Your task to perform on an android device: turn smart compose on in the gmail app Image 0: 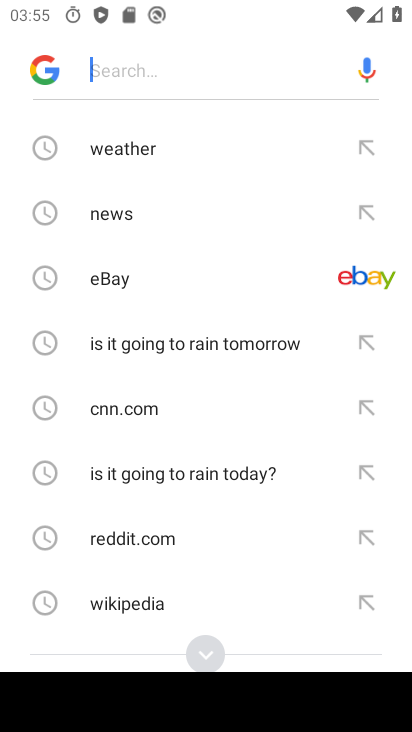
Step 0: press home button
Your task to perform on an android device: turn smart compose on in the gmail app Image 1: 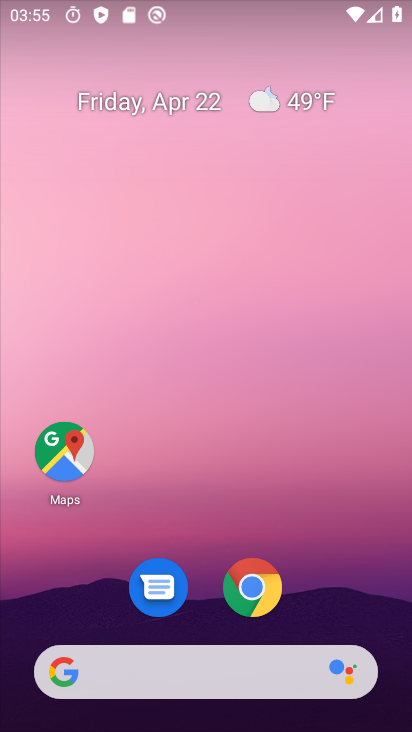
Step 1: drag from (358, 569) to (344, 44)
Your task to perform on an android device: turn smart compose on in the gmail app Image 2: 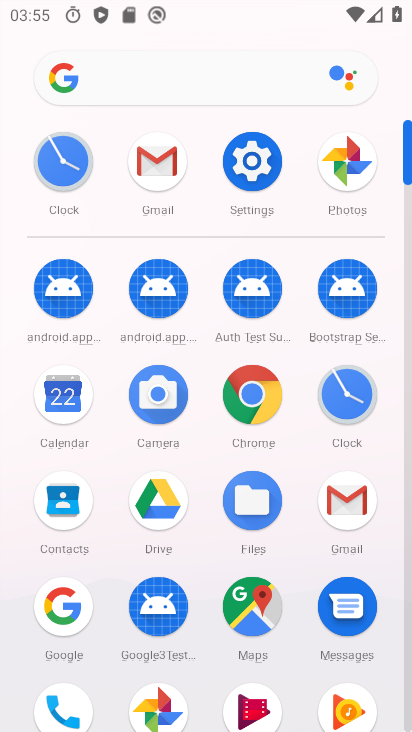
Step 2: click (163, 177)
Your task to perform on an android device: turn smart compose on in the gmail app Image 3: 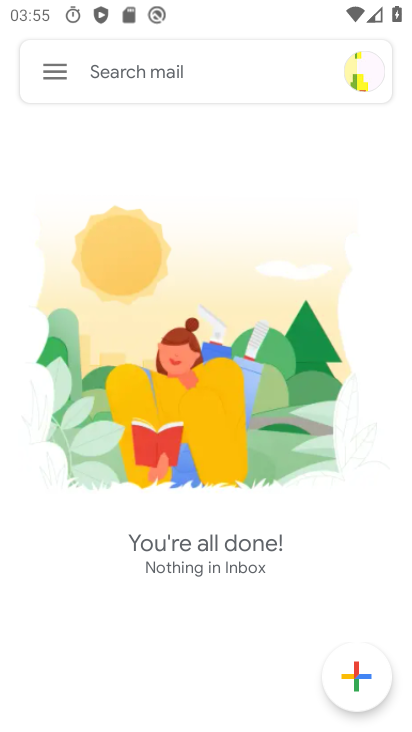
Step 3: click (60, 80)
Your task to perform on an android device: turn smart compose on in the gmail app Image 4: 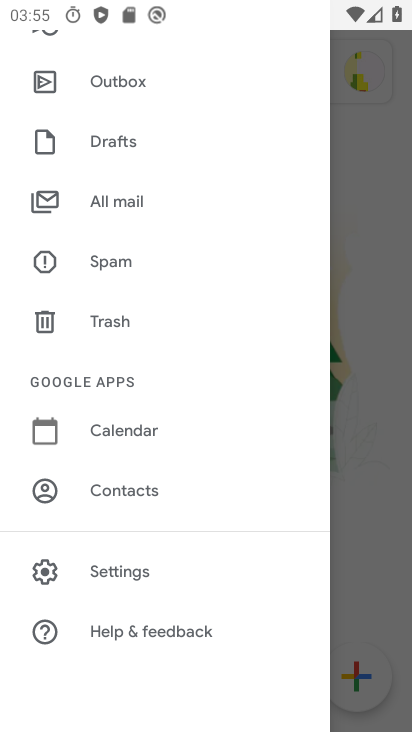
Step 4: click (141, 574)
Your task to perform on an android device: turn smart compose on in the gmail app Image 5: 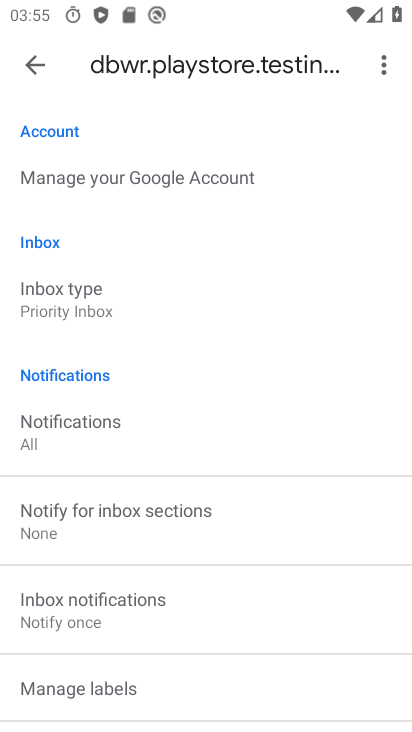
Step 5: task complete